Your task to perform on an android device: open app "Reddit" Image 0: 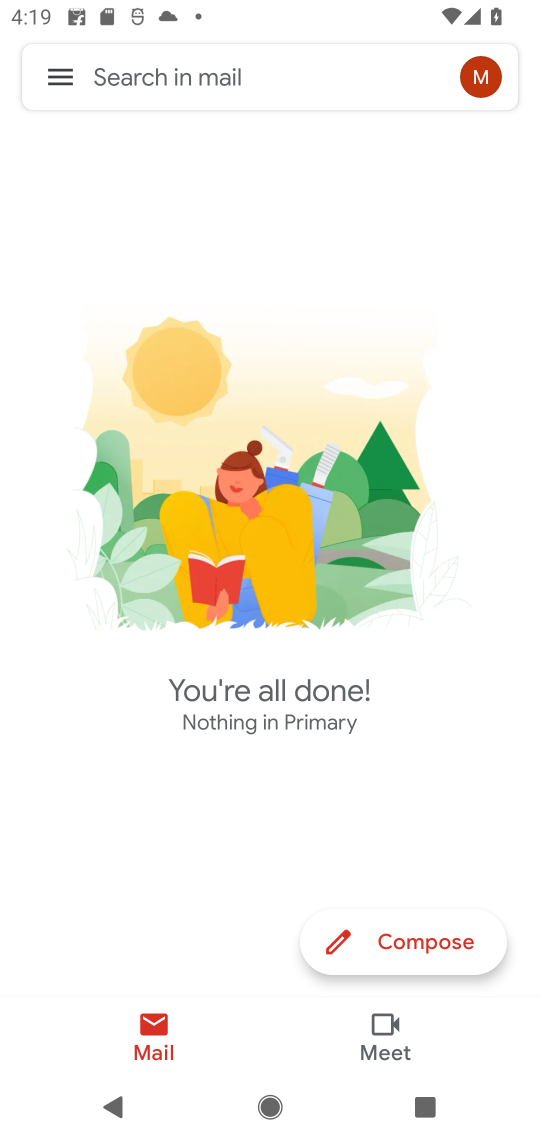
Step 0: press home button
Your task to perform on an android device: open app "Reddit" Image 1: 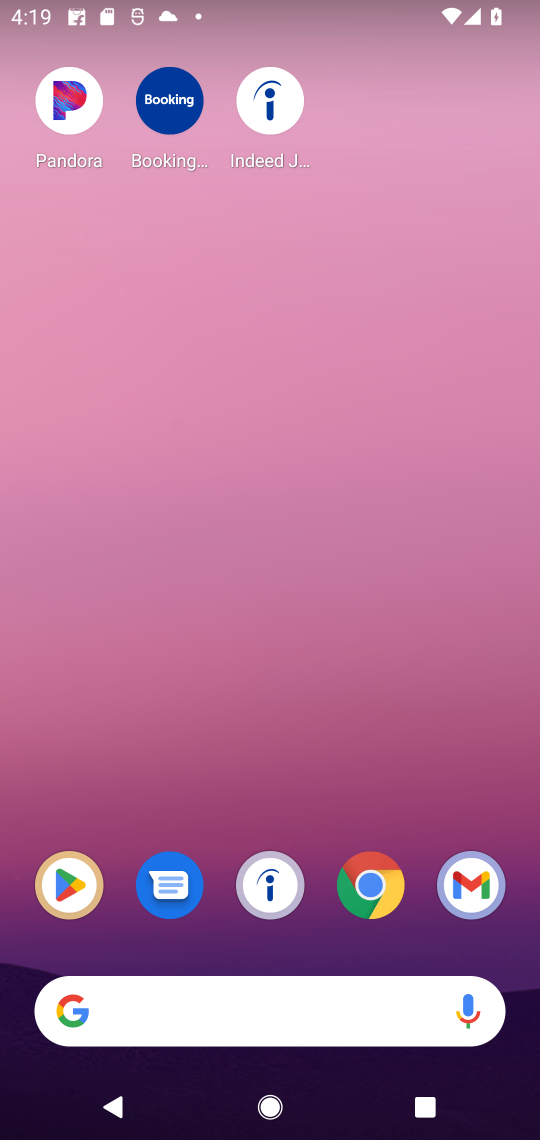
Step 1: click (67, 880)
Your task to perform on an android device: open app "Reddit" Image 2: 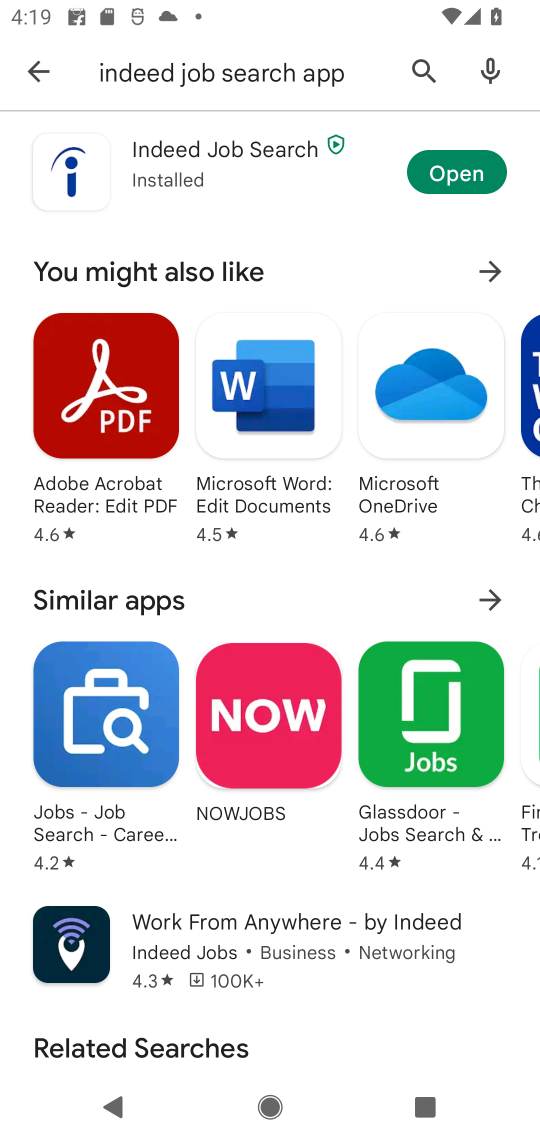
Step 2: click (418, 71)
Your task to perform on an android device: open app "Reddit" Image 3: 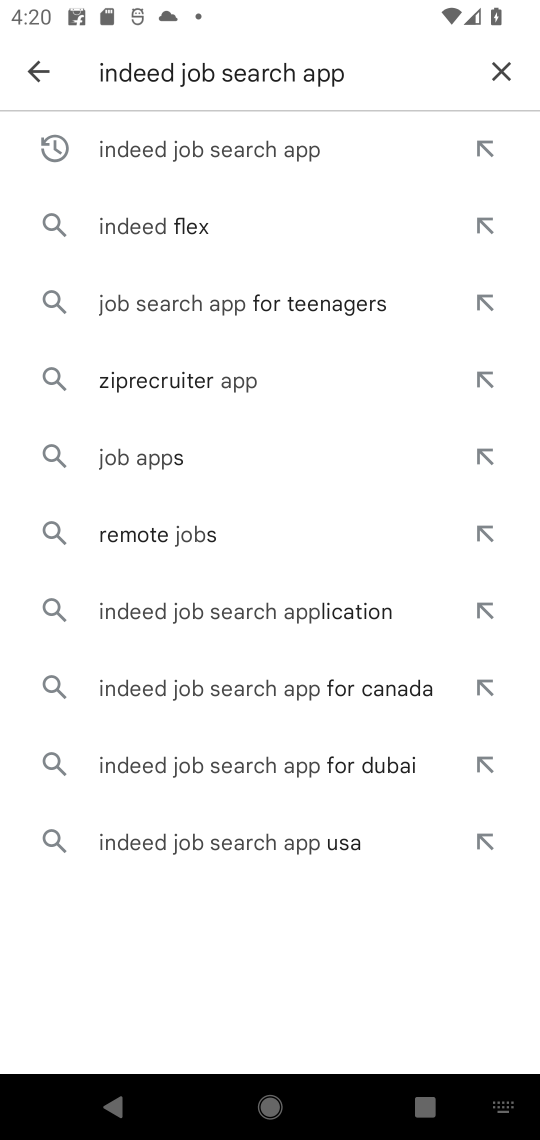
Step 3: click (505, 67)
Your task to perform on an android device: open app "Reddit" Image 4: 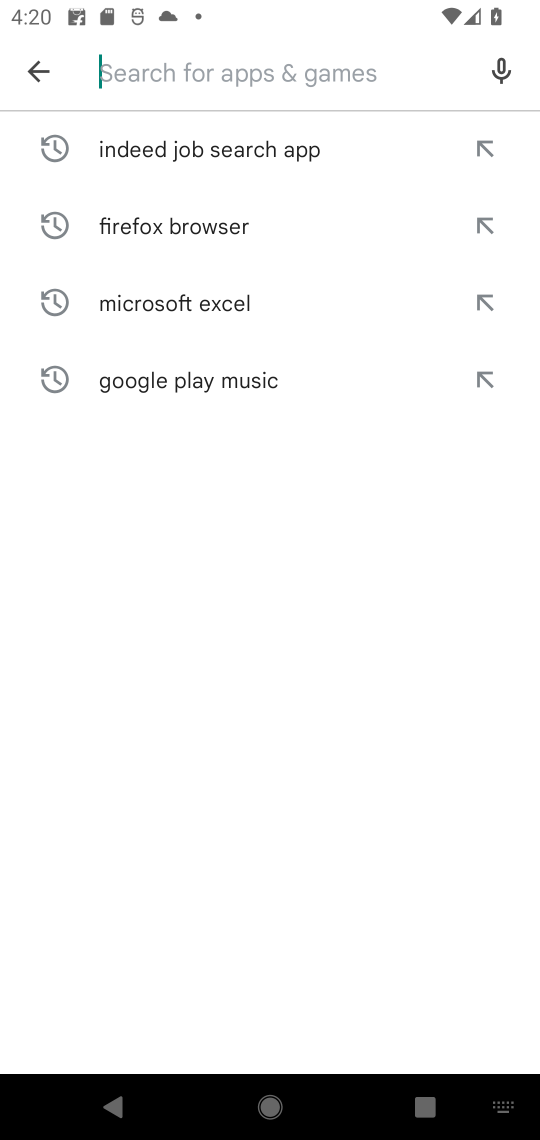
Step 4: type "Reddit"
Your task to perform on an android device: open app "Reddit" Image 5: 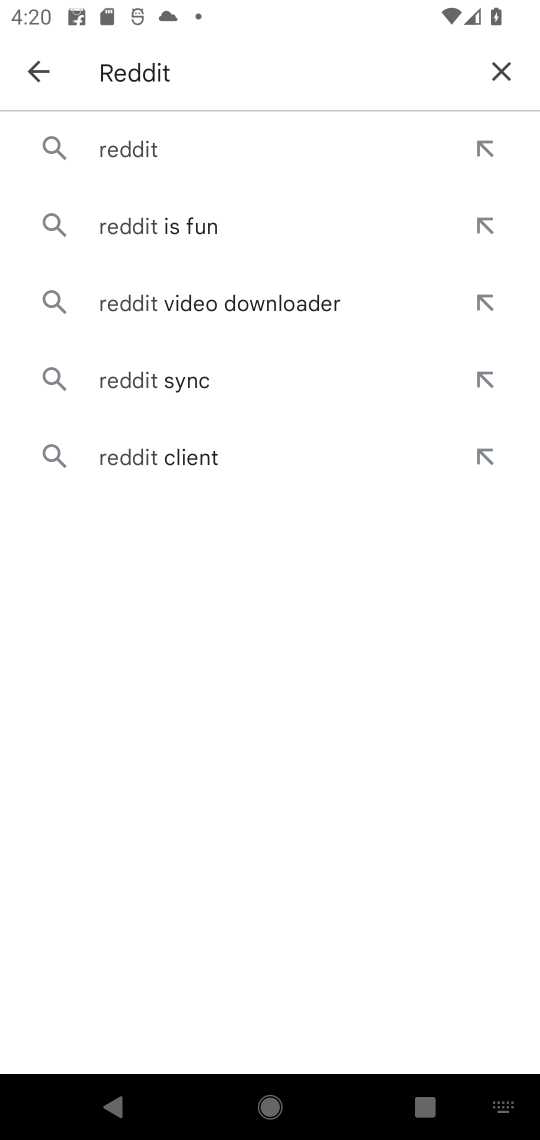
Step 5: click (95, 163)
Your task to perform on an android device: open app "Reddit" Image 6: 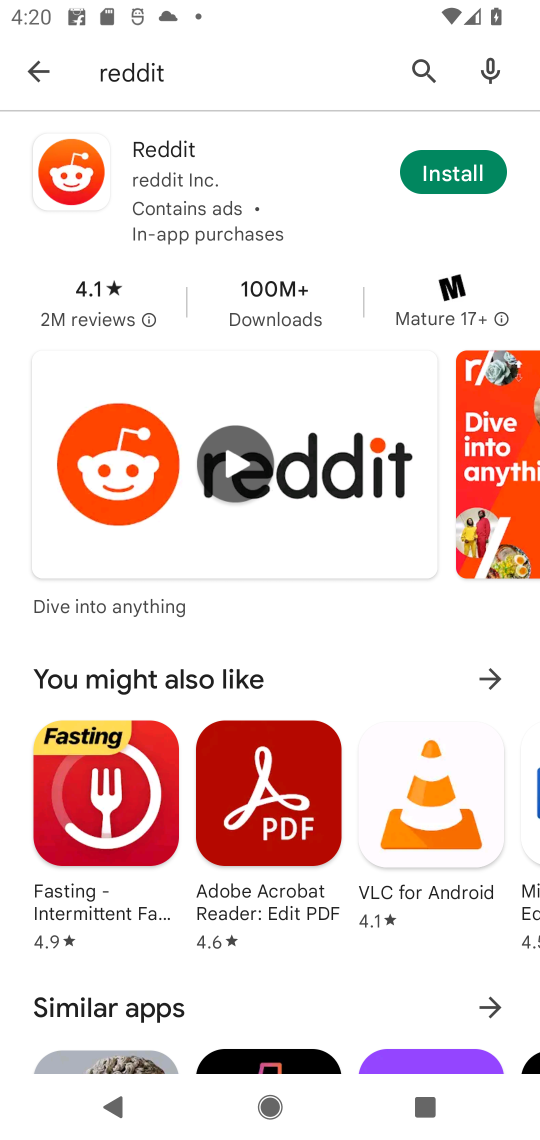
Step 6: click (439, 165)
Your task to perform on an android device: open app "Reddit" Image 7: 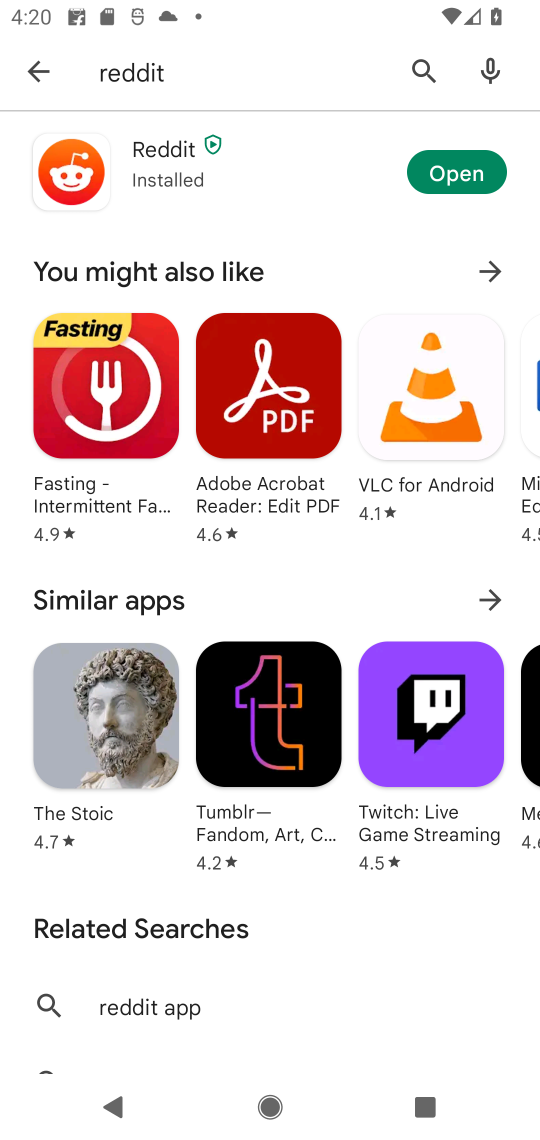
Step 7: click (439, 165)
Your task to perform on an android device: open app "Reddit" Image 8: 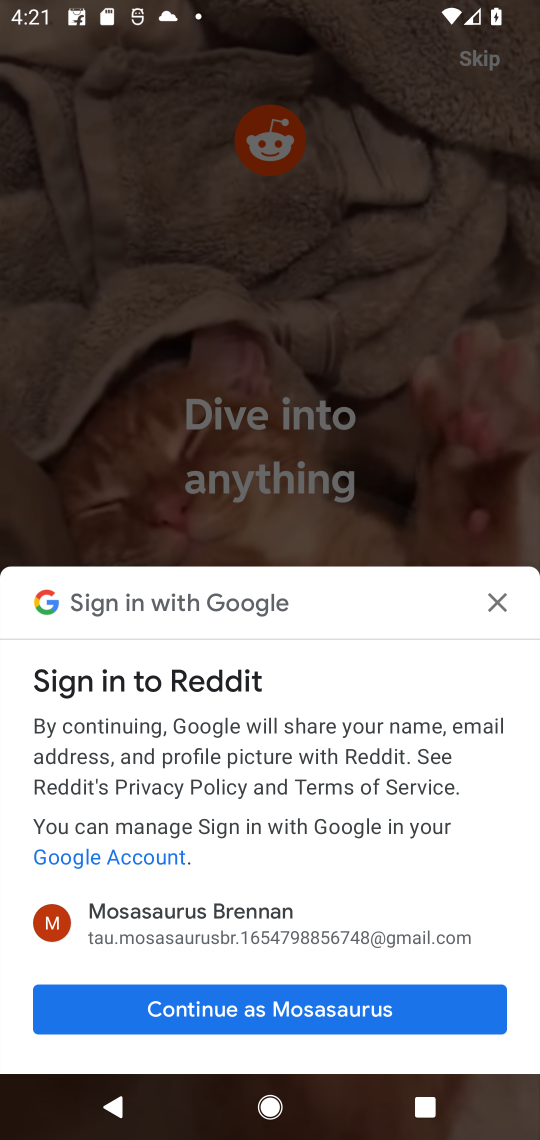
Step 8: task complete